Your task to perform on an android device: Open Google Maps and go to "Timeline" Image 0: 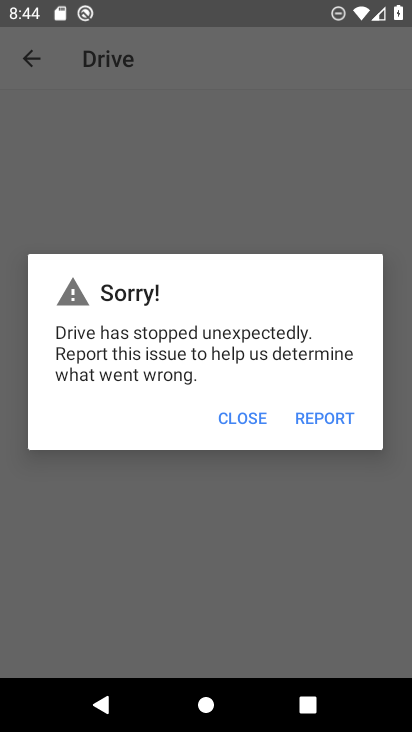
Step 0: press home button
Your task to perform on an android device: Open Google Maps and go to "Timeline" Image 1: 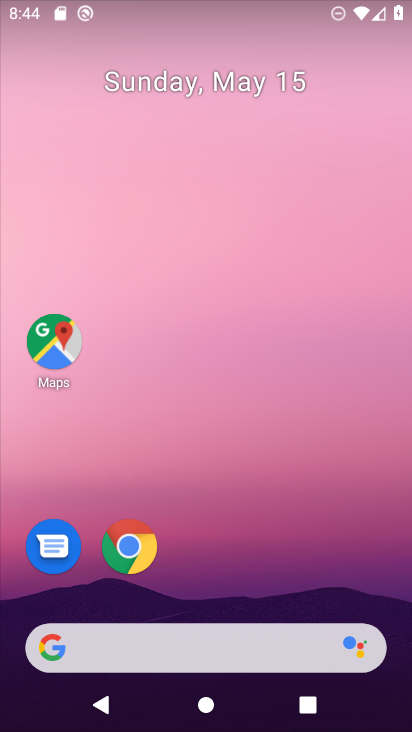
Step 1: click (52, 335)
Your task to perform on an android device: Open Google Maps and go to "Timeline" Image 2: 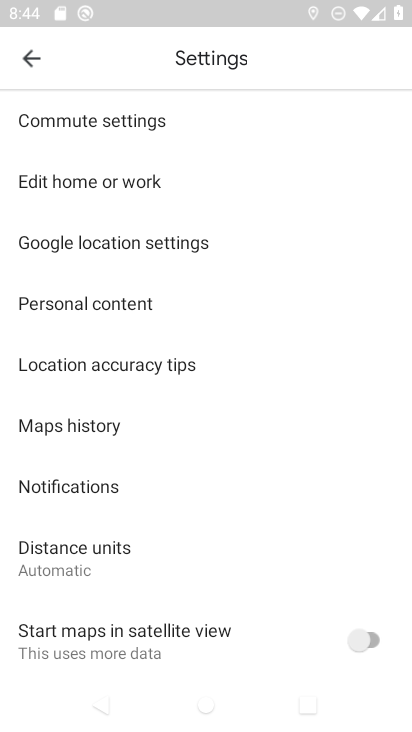
Step 2: click (28, 50)
Your task to perform on an android device: Open Google Maps and go to "Timeline" Image 3: 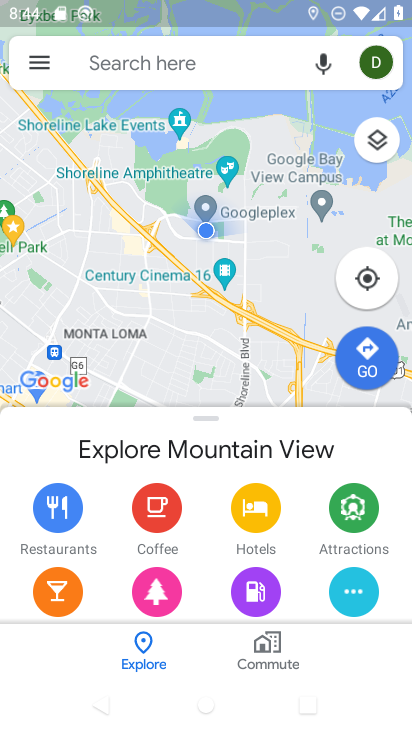
Step 3: click (28, 50)
Your task to perform on an android device: Open Google Maps and go to "Timeline" Image 4: 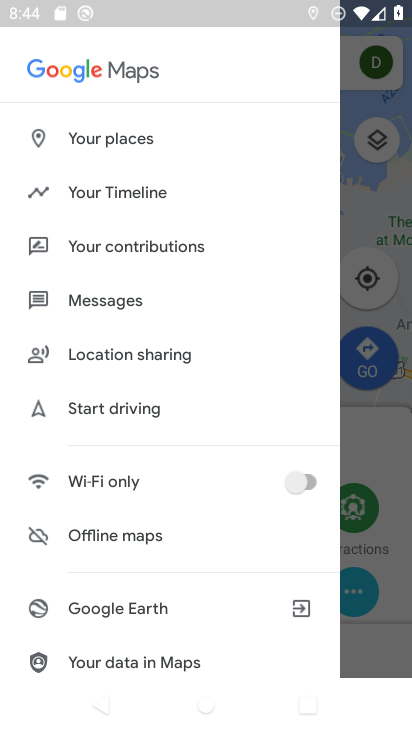
Step 4: click (110, 186)
Your task to perform on an android device: Open Google Maps and go to "Timeline" Image 5: 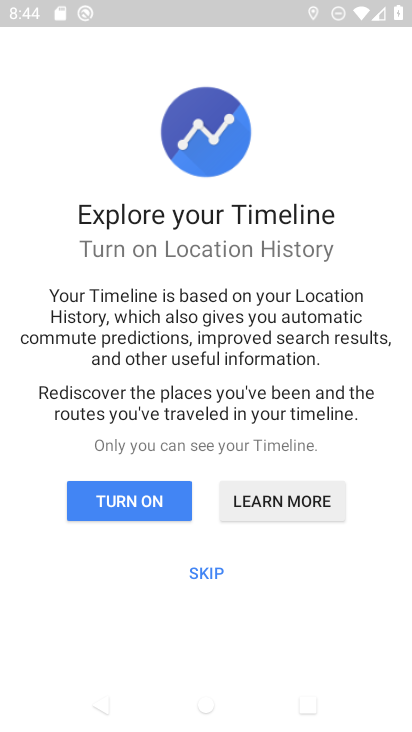
Step 5: click (206, 566)
Your task to perform on an android device: Open Google Maps and go to "Timeline" Image 6: 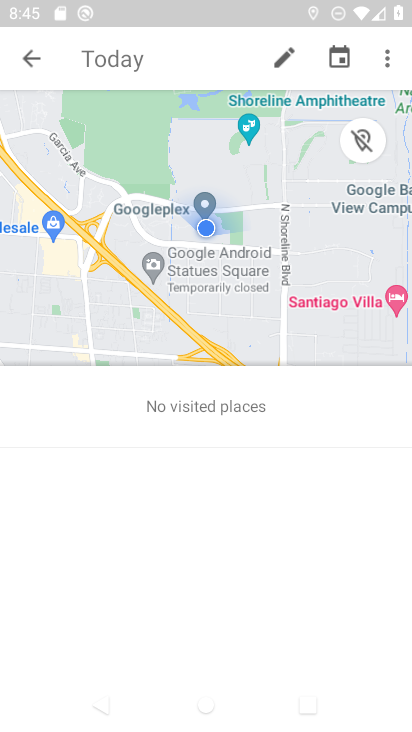
Step 6: task complete